Your task to perform on an android device: uninstall "Contacts" Image 0: 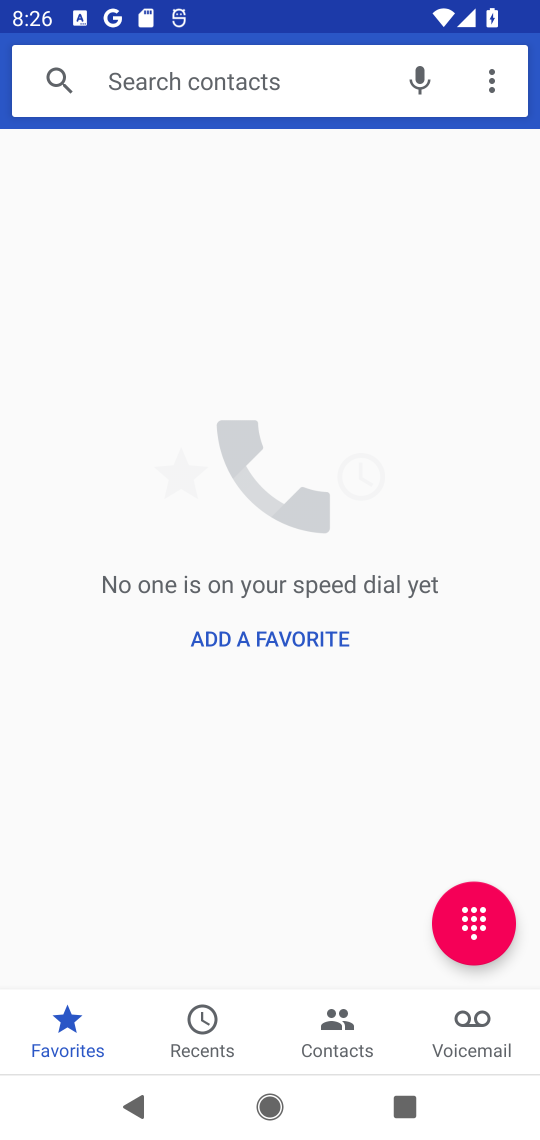
Step 0: press home button
Your task to perform on an android device: uninstall "Contacts" Image 1: 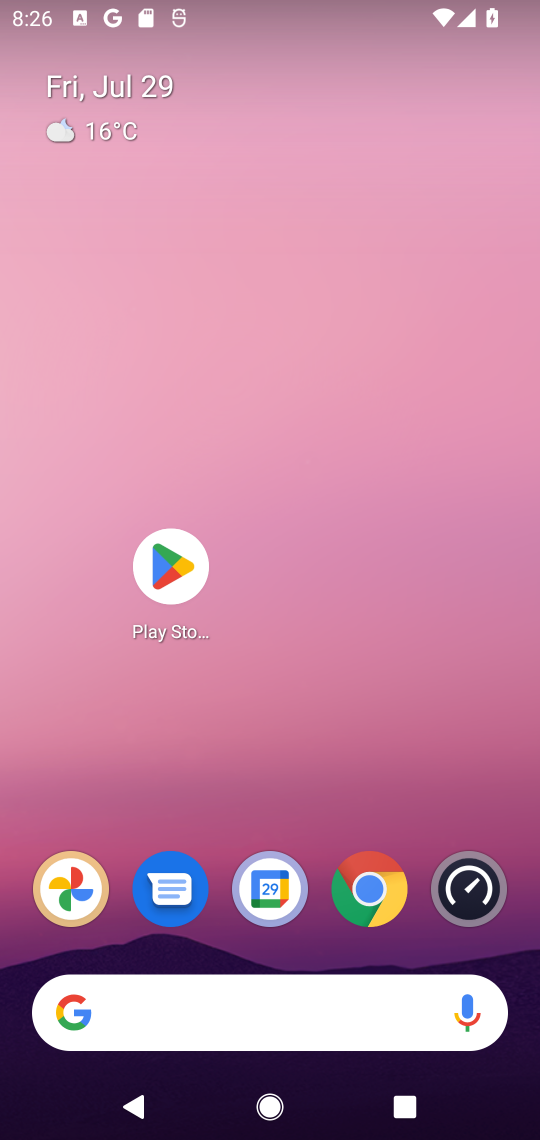
Step 1: click (169, 556)
Your task to perform on an android device: uninstall "Contacts" Image 2: 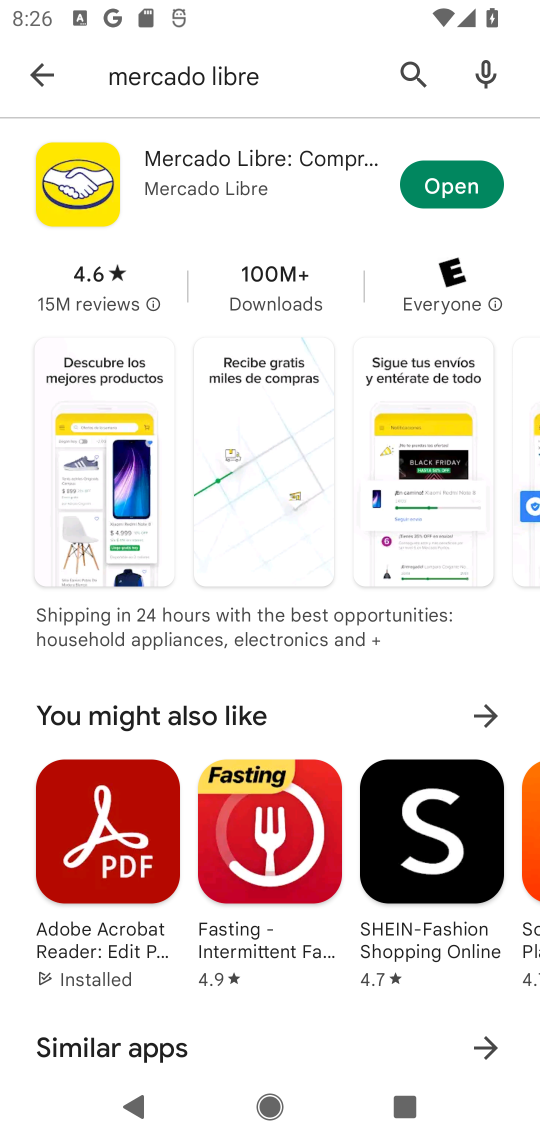
Step 2: click (400, 64)
Your task to perform on an android device: uninstall "Contacts" Image 3: 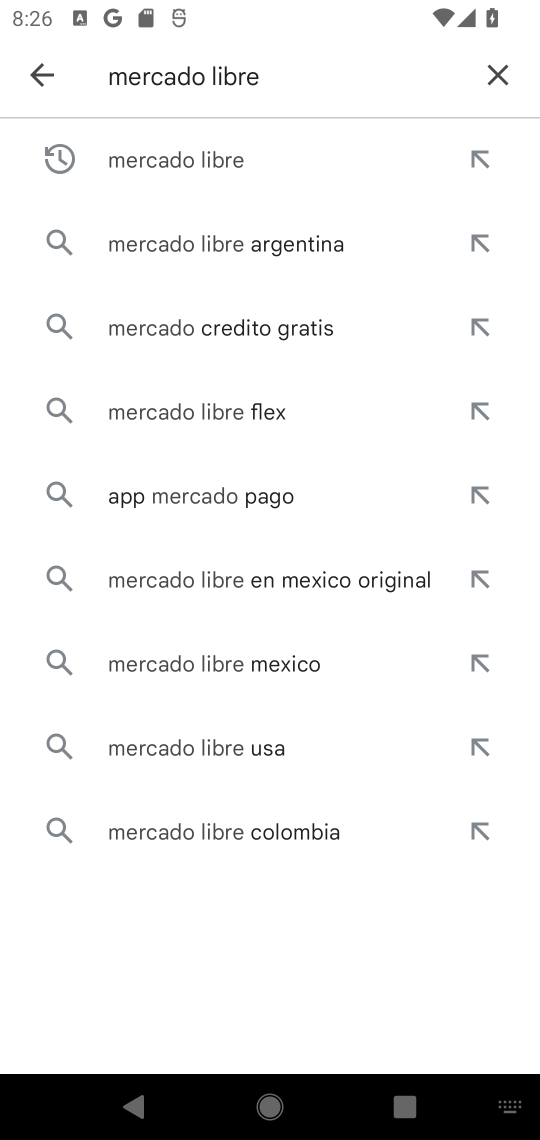
Step 3: click (493, 65)
Your task to perform on an android device: uninstall "Contacts" Image 4: 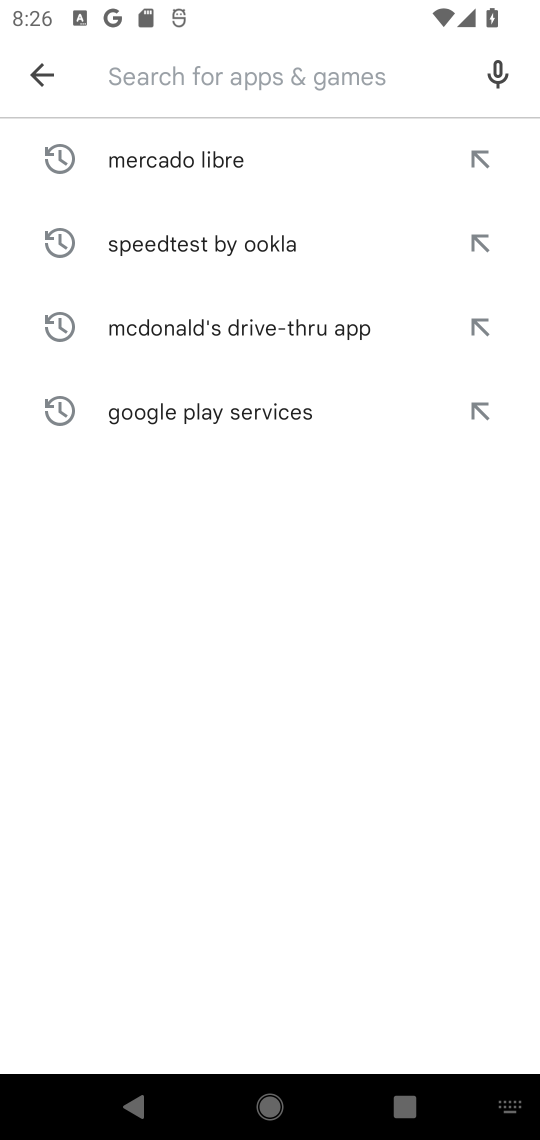
Step 4: type "Contacts"
Your task to perform on an android device: uninstall "Contacts" Image 5: 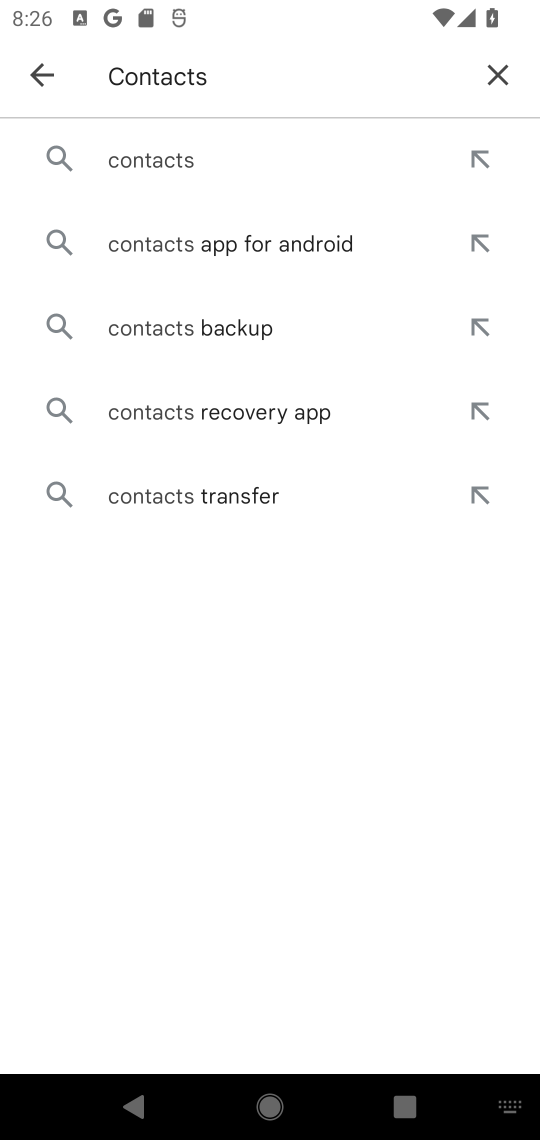
Step 5: click (169, 156)
Your task to perform on an android device: uninstall "Contacts" Image 6: 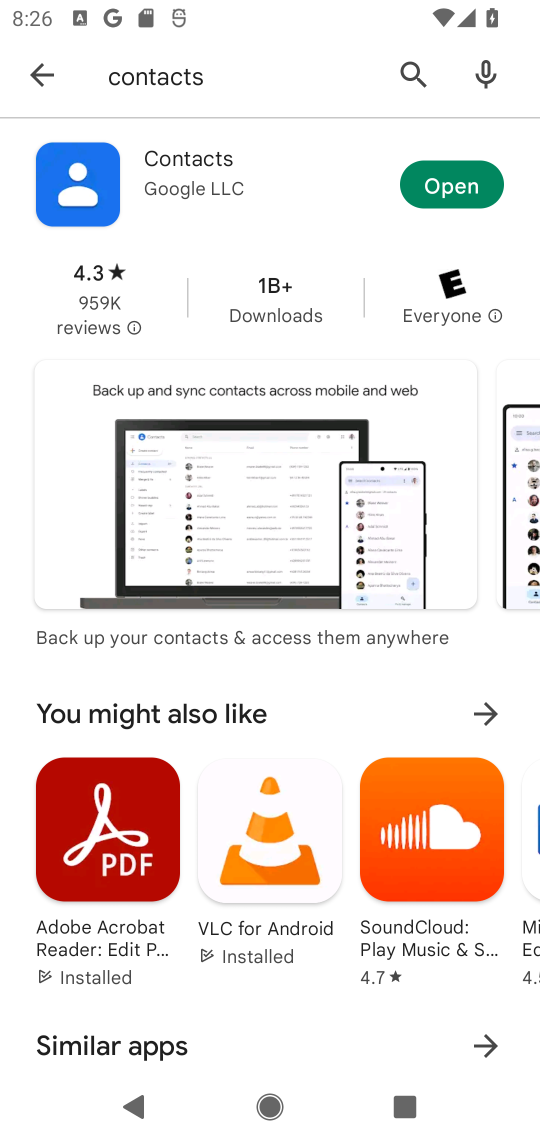
Step 6: click (121, 193)
Your task to perform on an android device: uninstall "Contacts" Image 7: 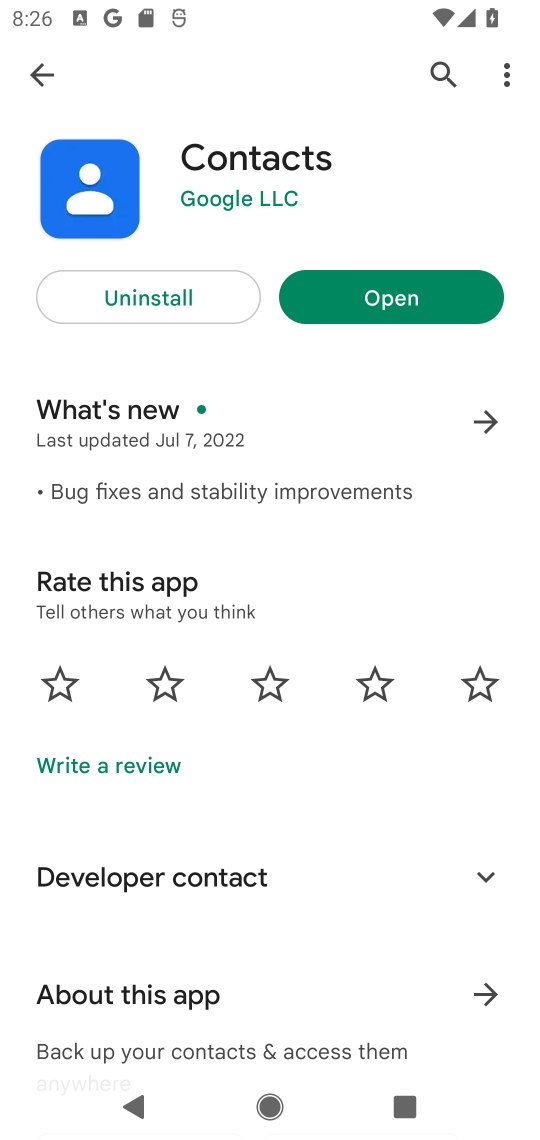
Step 7: click (178, 291)
Your task to perform on an android device: uninstall "Contacts" Image 8: 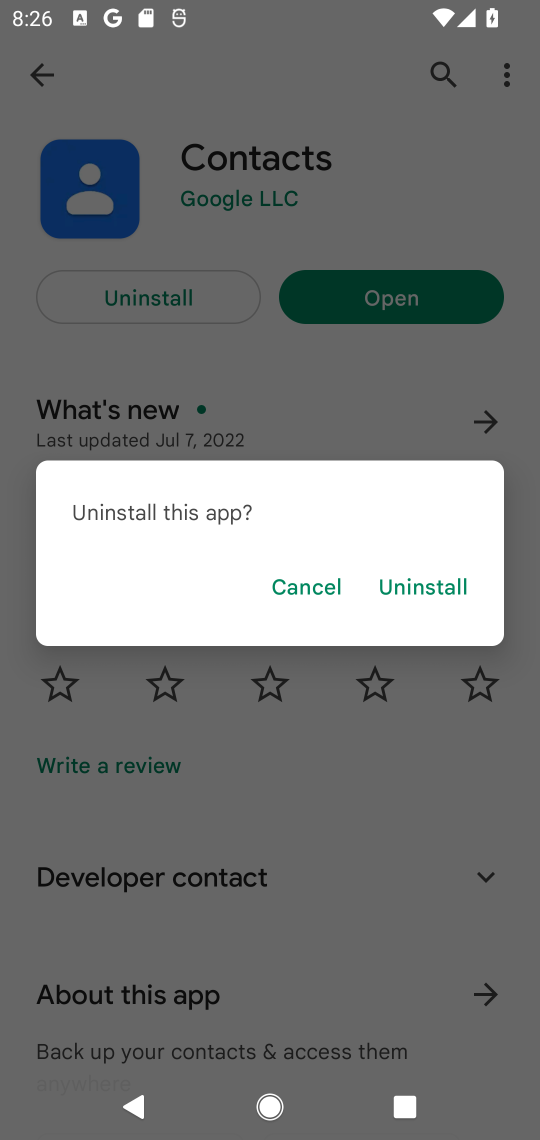
Step 8: click (420, 581)
Your task to perform on an android device: uninstall "Contacts" Image 9: 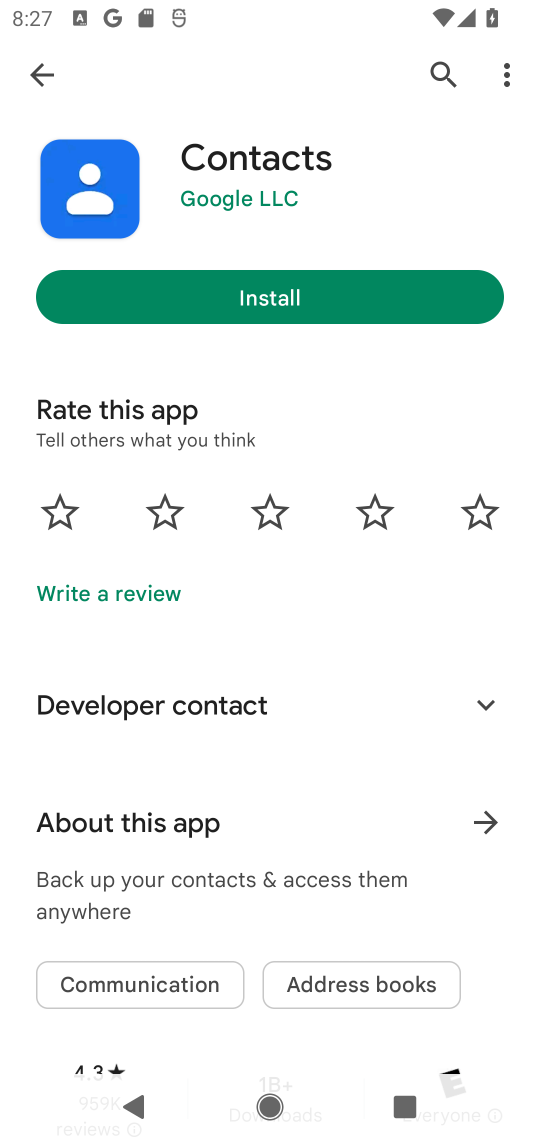
Step 9: task complete